Your task to perform on an android device: Open location settings Image 0: 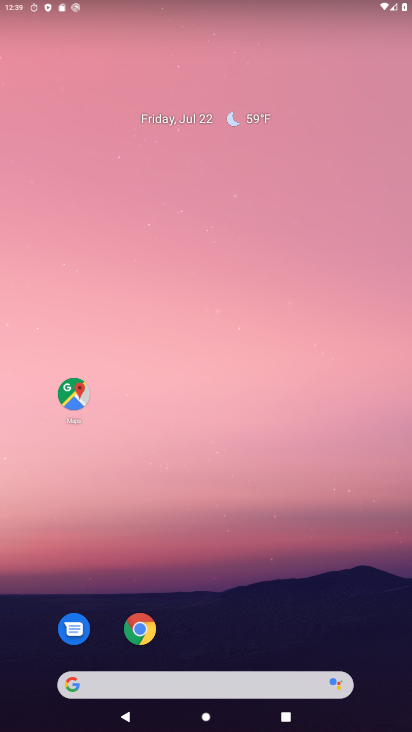
Step 0: drag from (241, 689) to (298, 164)
Your task to perform on an android device: Open location settings Image 1: 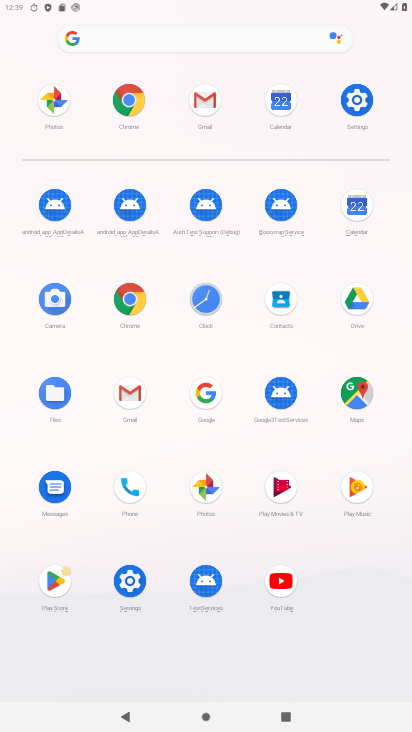
Step 1: click (356, 106)
Your task to perform on an android device: Open location settings Image 2: 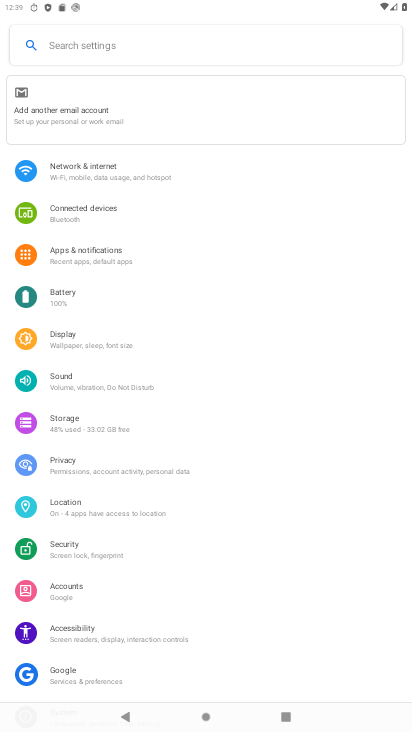
Step 2: click (93, 508)
Your task to perform on an android device: Open location settings Image 3: 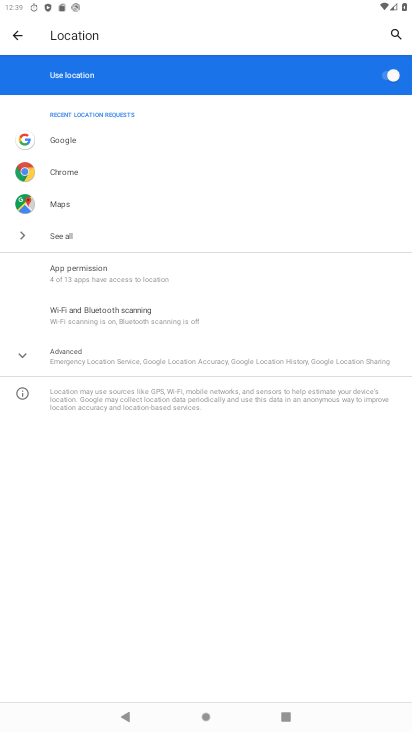
Step 3: task complete